Your task to perform on an android device: Go to Yahoo.com Image 0: 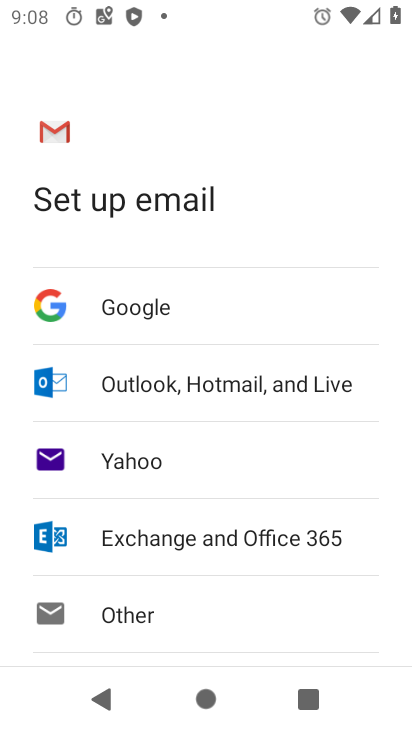
Step 0: press home button
Your task to perform on an android device: Go to Yahoo.com Image 1: 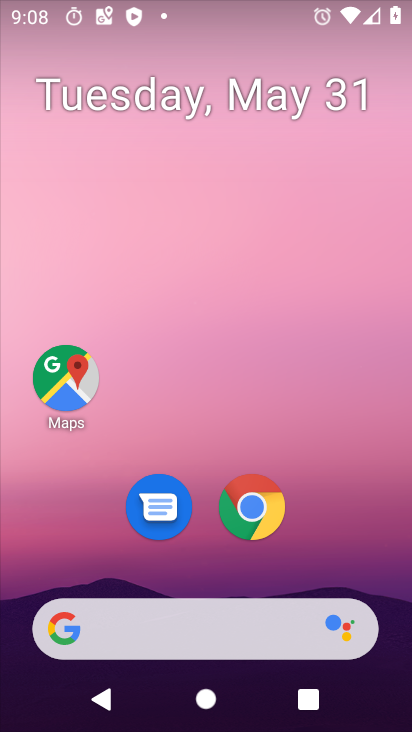
Step 1: click (252, 508)
Your task to perform on an android device: Go to Yahoo.com Image 2: 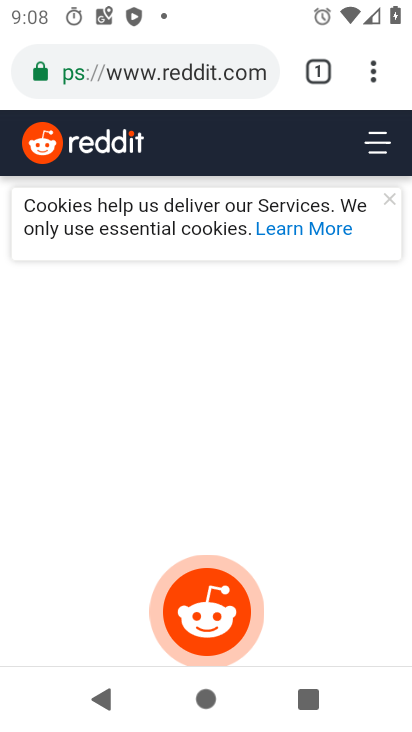
Step 2: click (128, 81)
Your task to perform on an android device: Go to Yahoo.com Image 3: 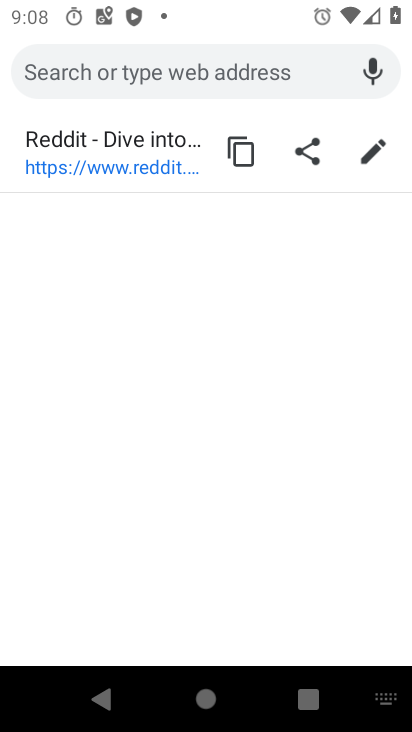
Step 3: type "yahoo.com"
Your task to perform on an android device: Go to Yahoo.com Image 4: 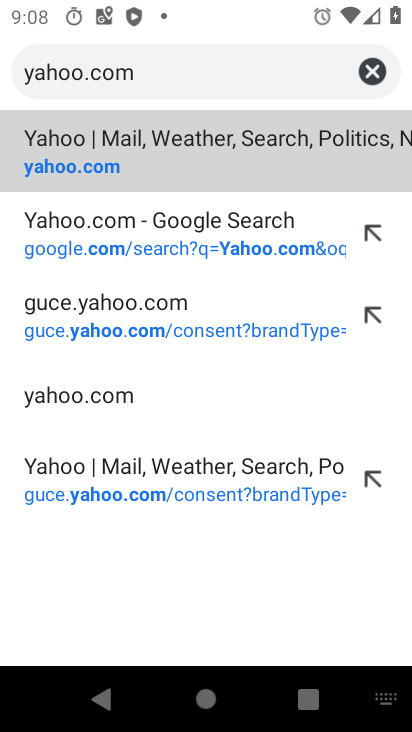
Step 4: click (99, 176)
Your task to perform on an android device: Go to Yahoo.com Image 5: 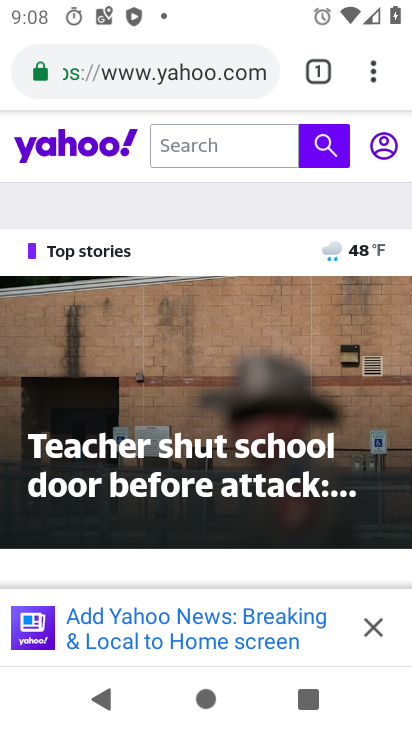
Step 5: task complete